Your task to perform on an android device: refresh tabs in the chrome app Image 0: 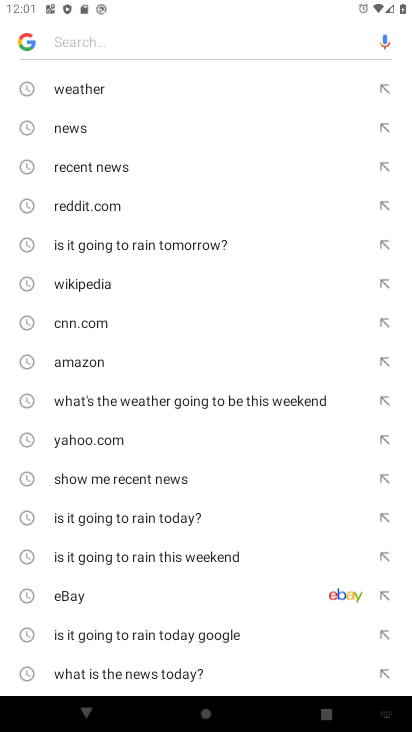
Step 0: press home button
Your task to perform on an android device: refresh tabs in the chrome app Image 1: 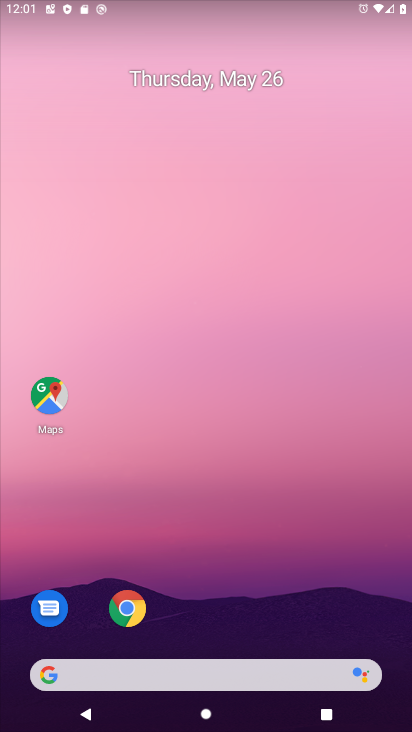
Step 1: click (126, 604)
Your task to perform on an android device: refresh tabs in the chrome app Image 2: 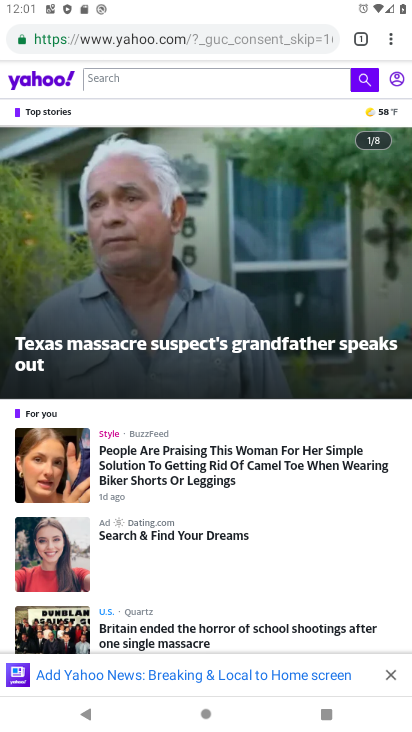
Step 2: click (392, 43)
Your task to perform on an android device: refresh tabs in the chrome app Image 3: 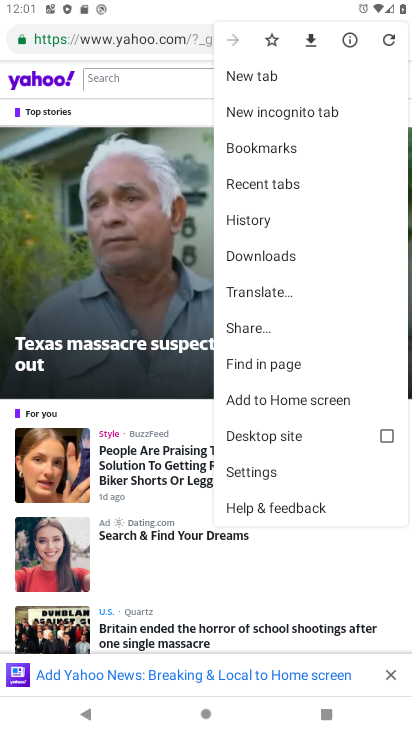
Step 3: click (386, 42)
Your task to perform on an android device: refresh tabs in the chrome app Image 4: 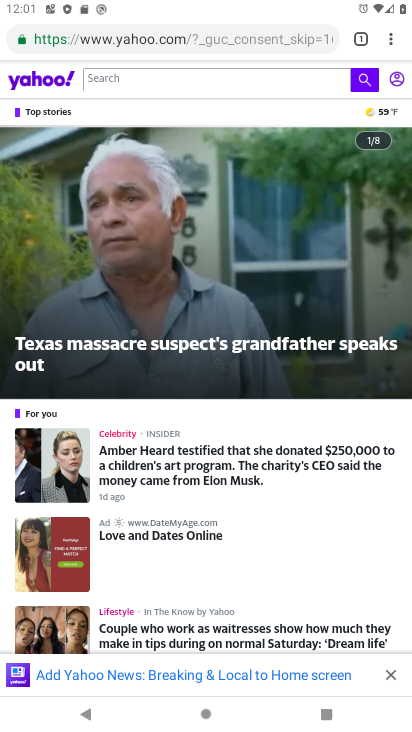
Step 4: task complete